Your task to perform on an android device: change the clock display to digital Image 0: 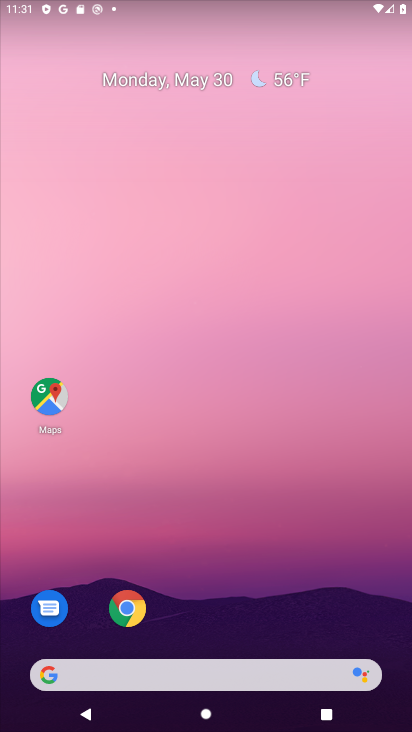
Step 0: drag from (216, 620) to (272, 95)
Your task to perform on an android device: change the clock display to digital Image 1: 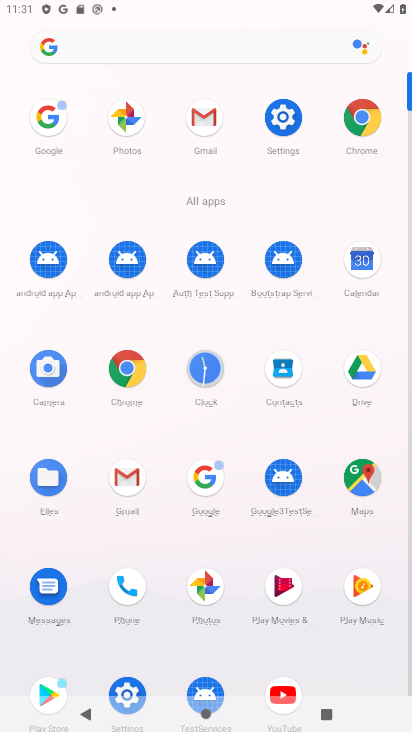
Step 1: click (202, 373)
Your task to perform on an android device: change the clock display to digital Image 2: 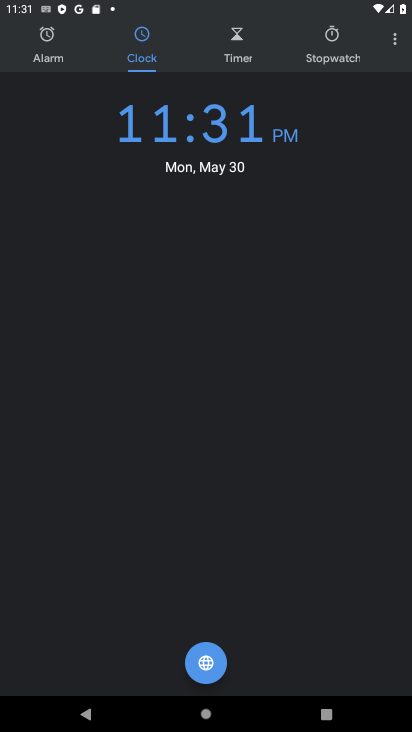
Step 2: click (385, 37)
Your task to perform on an android device: change the clock display to digital Image 3: 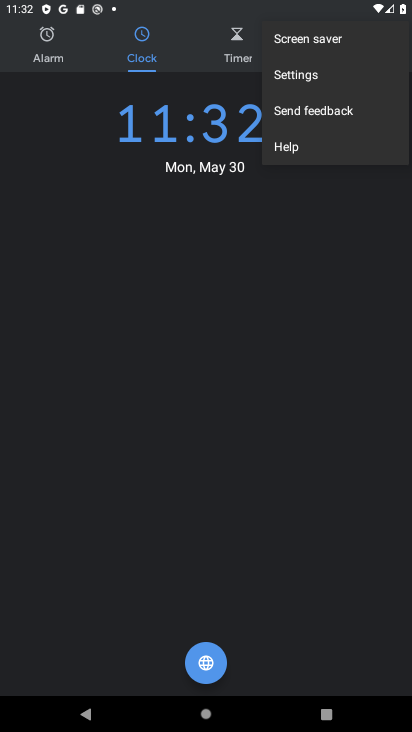
Step 3: click (339, 75)
Your task to perform on an android device: change the clock display to digital Image 4: 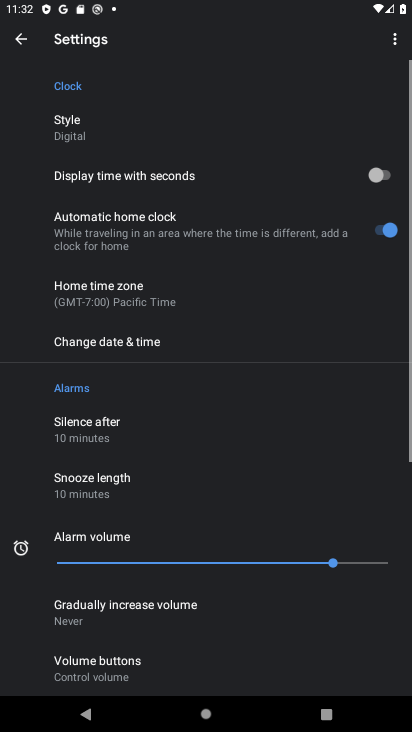
Step 4: click (104, 136)
Your task to perform on an android device: change the clock display to digital Image 5: 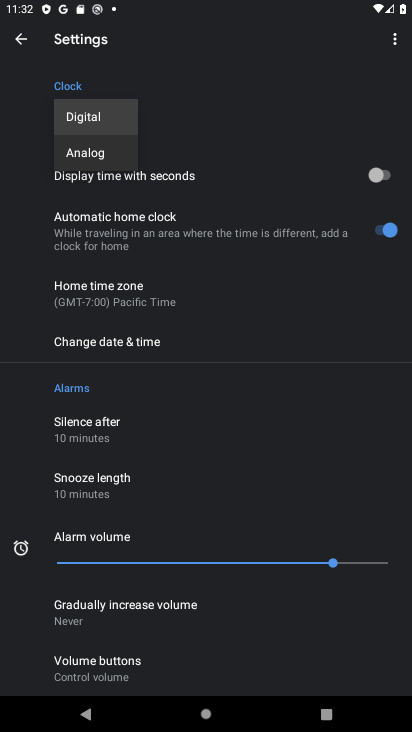
Step 5: click (99, 124)
Your task to perform on an android device: change the clock display to digital Image 6: 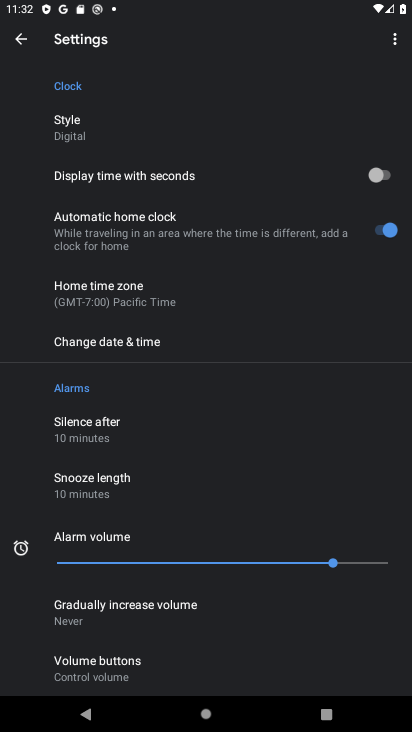
Step 6: task complete